Your task to perform on an android device: star an email in the gmail app Image 0: 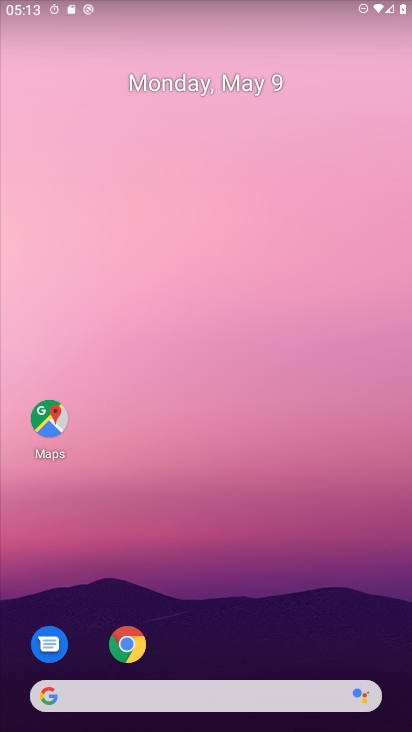
Step 0: drag from (238, 586) to (240, 26)
Your task to perform on an android device: star an email in the gmail app Image 1: 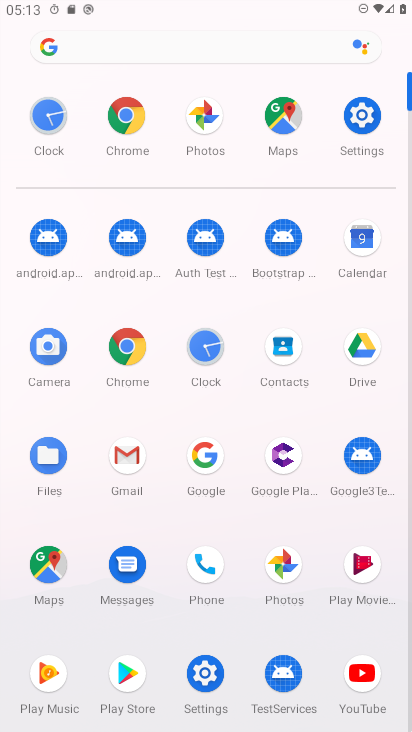
Step 1: click (365, 118)
Your task to perform on an android device: star an email in the gmail app Image 2: 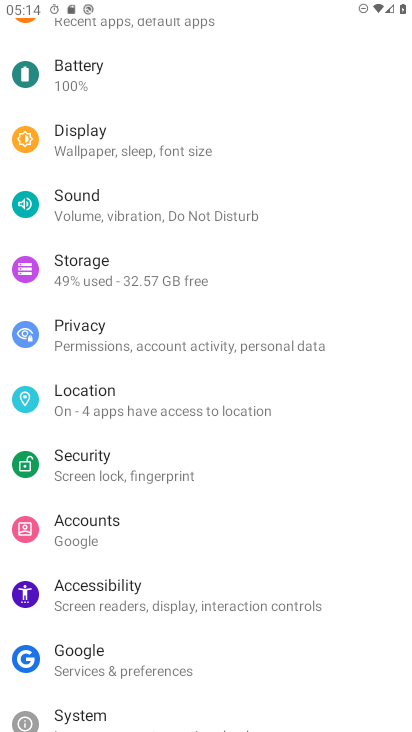
Step 2: press home button
Your task to perform on an android device: star an email in the gmail app Image 3: 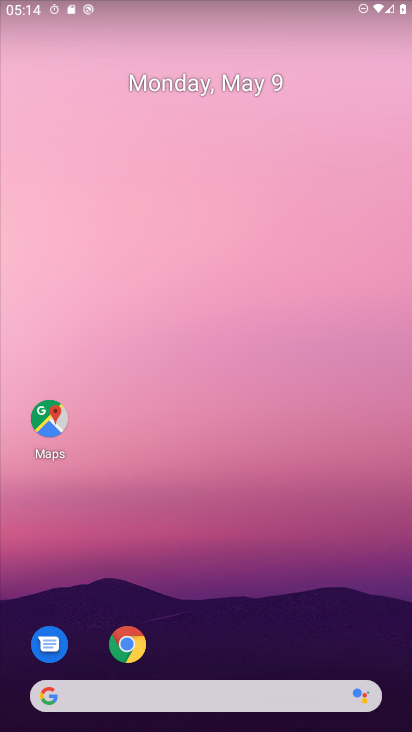
Step 3: drag from (226, 585) to (111, 44)
Your task to perform on an android device: star an email in the gmail app Image 4: 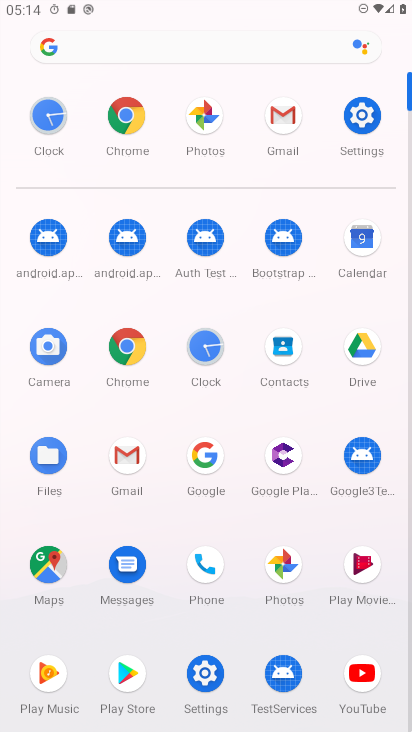
Step 4: click (282, 113)
Your task to perform on an android device: star an email in the gmail app Image 5: 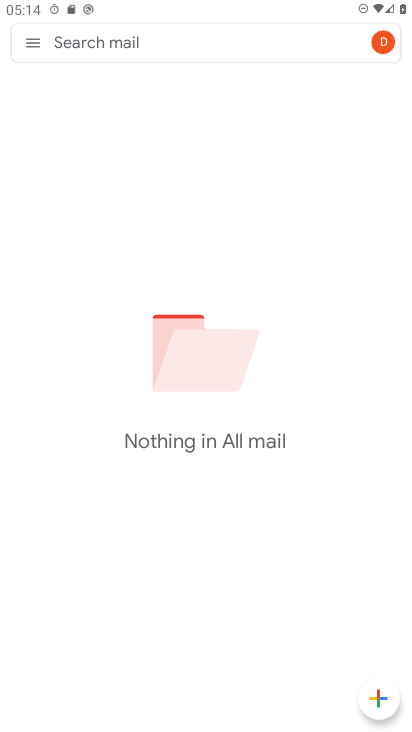
Step 5: click (29, 43)
Your task to perform on an android device: star an email in the gmail app Image 6: 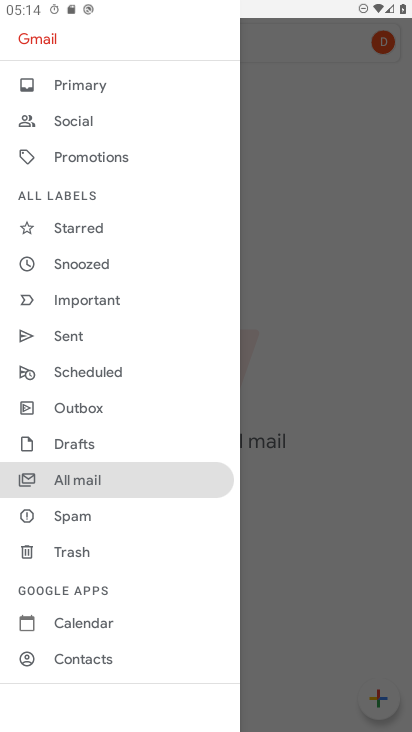
Step 6: click (95, 233)
Your task to perform on an android device: star an email in the gmail app Image 7: 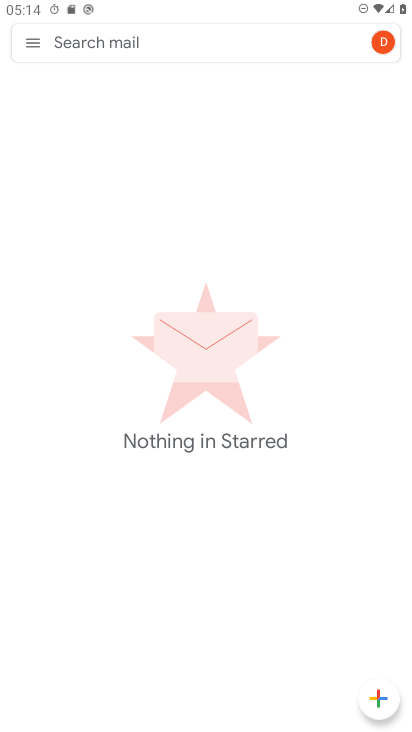
Step 7: task complete